Your task to perform on an android device: Go to privacy settings Image 0: 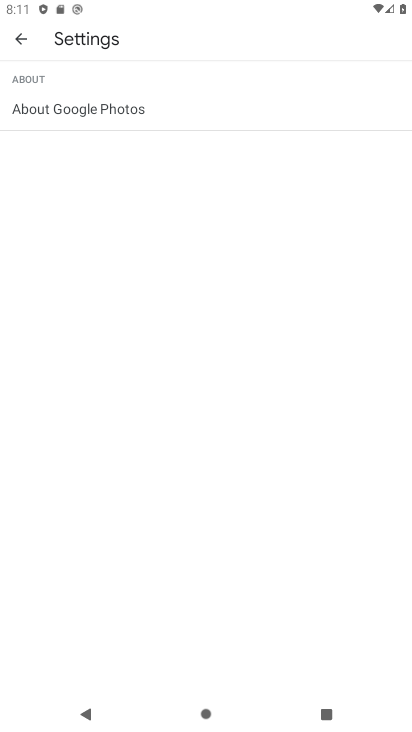
Step 0: press back button
Your task to perform on an android device: Go to privacy settings Image 1: 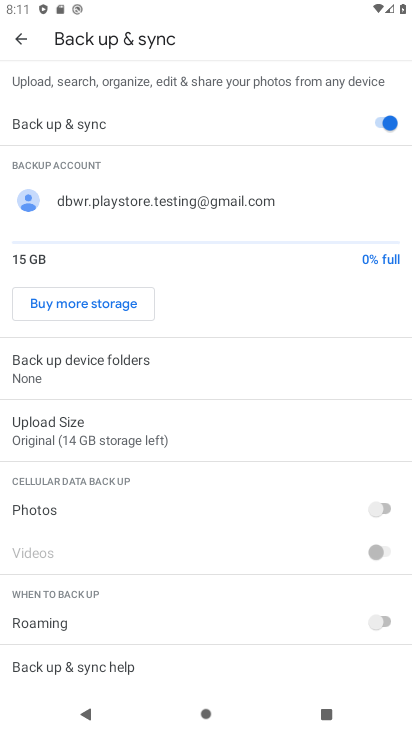
Step 1: press home button
Your task to perform on an android device: Go to privacy settings Image 2: 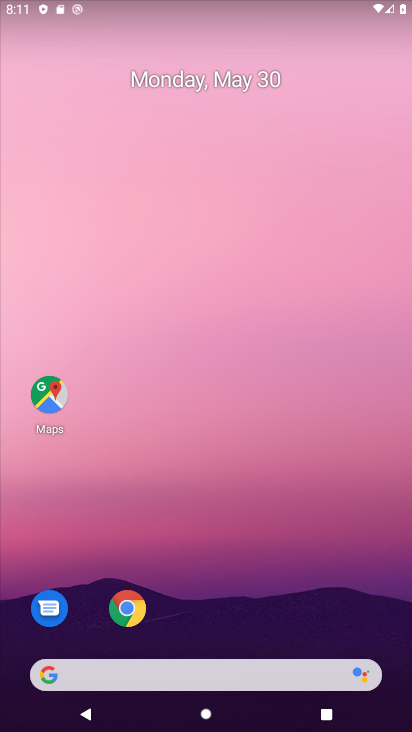
Step 2: click (131, 610)
Your task to perform on an android device: Go to privacy settings Image 3: 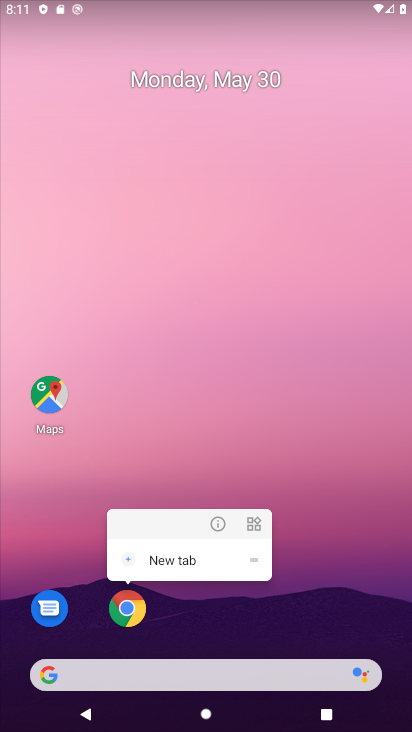
Step 3: click (131, 609)
Your task to perform on an android device: Go to privacy settings Image 4: 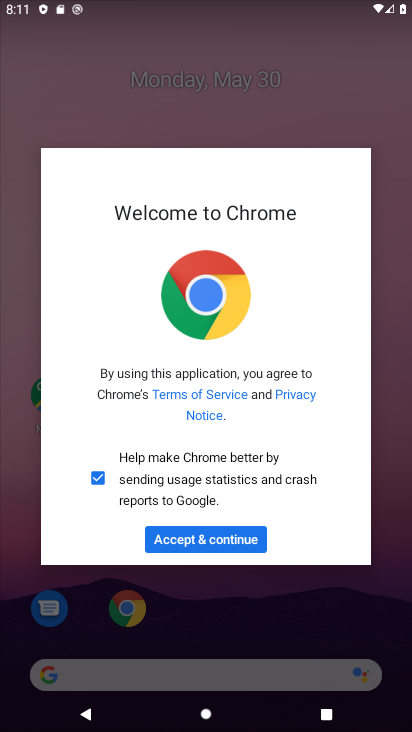
Step 4: click (217, 534)
Your task to perform on an android device: Go to privacy settings Image 5: 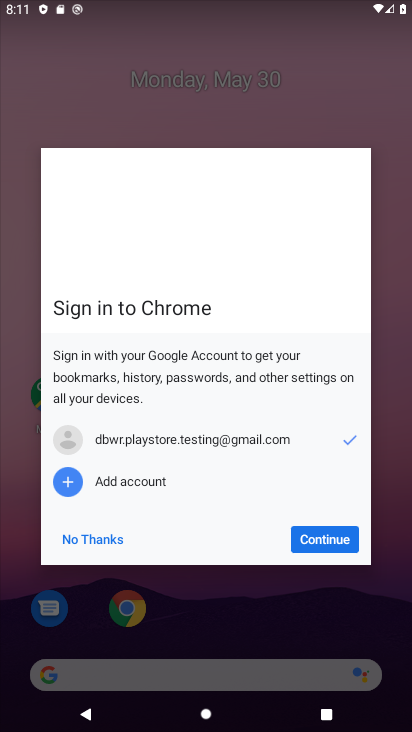
Step 5: click (298, 537)
Your task to perform on an android device: Go to privacy settings Image 6: 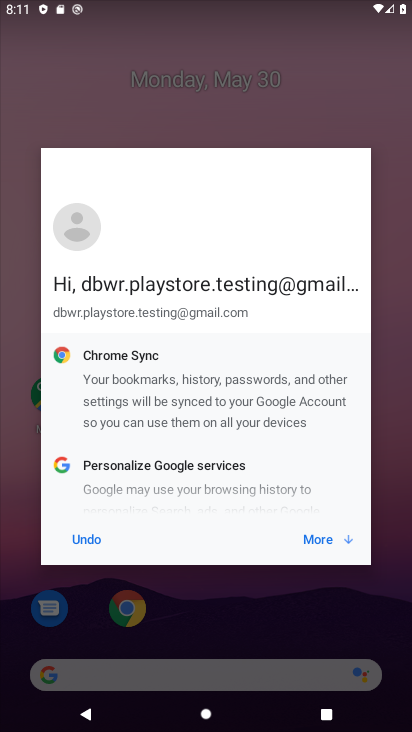
Step 6: click (300, 537)
Your task to perform on an android device: Go to privacy settings Image 7: 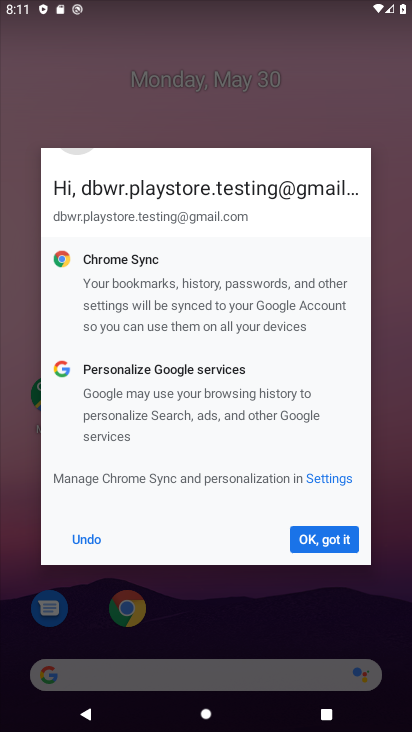
Step 7: click (300, 537)
Your task to perform on an android device: Go to privacy settings Image 8: 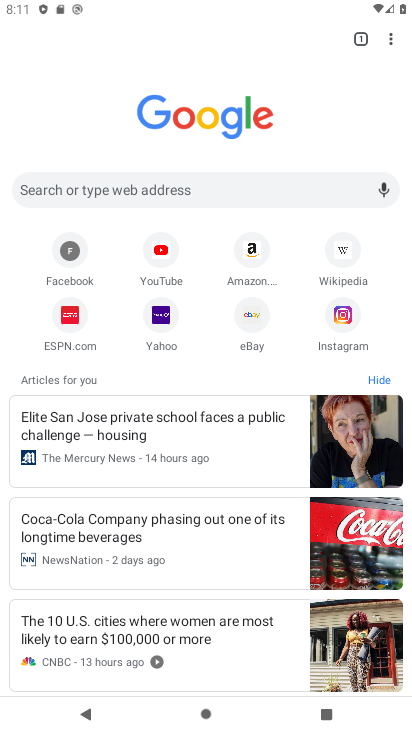
Step 8: click (388, 42)
Your task to perform on an android device: Go to privacy settings Image 9: 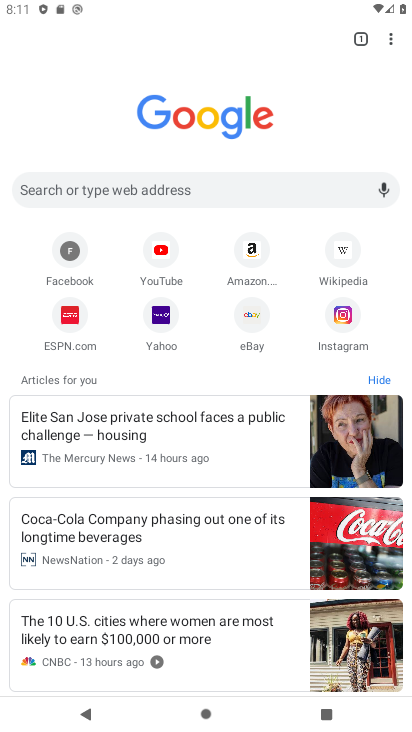
Step 9: click (388, 42)
Your task to perform on an android device: Go to privacy settings Image 10: 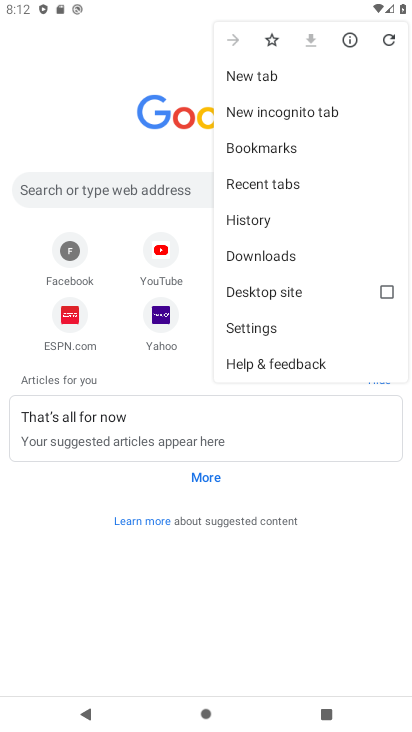
Step 10: click (261, 325)
Your task to perform on an android device: Go to privacy settings Image 11: 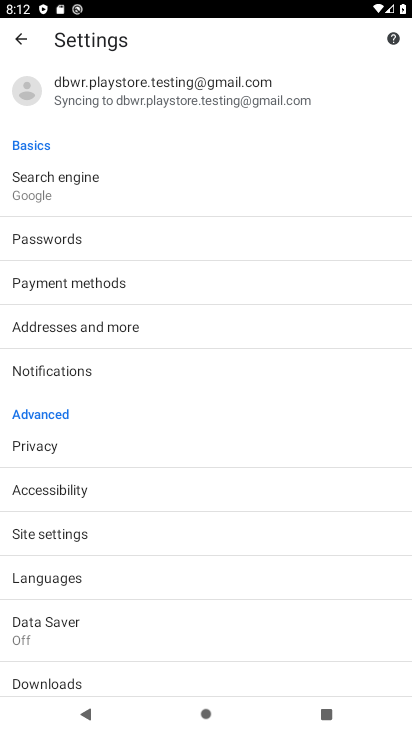
Step 11: click (32, 442)
Your task to perform on an android device: Go to privacy settings Image 12: 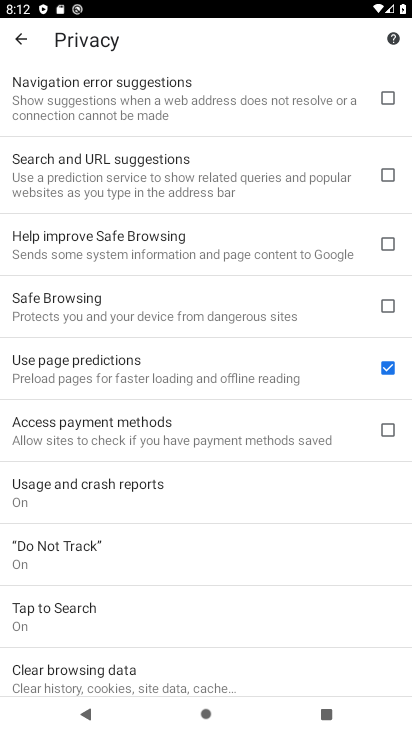
Step 12: task complete